Your task to perform on an android device: turn off notifications settings in the gmail app Image 0: 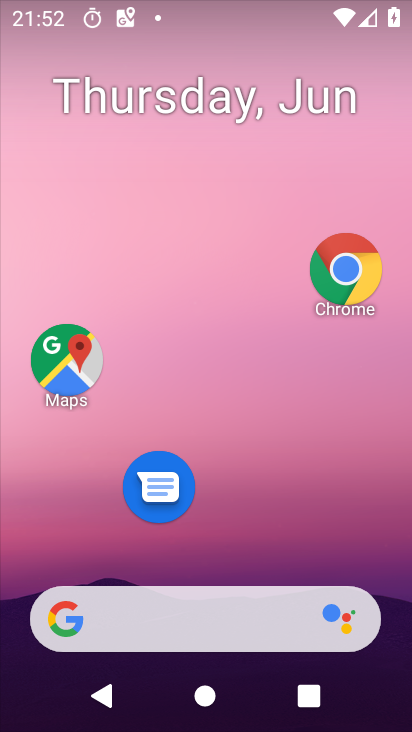
Step 0: drag from (222, 471) to (239, 143)
Your task to perform on an android device: turn off notifications settings in the gmail app Image 1: 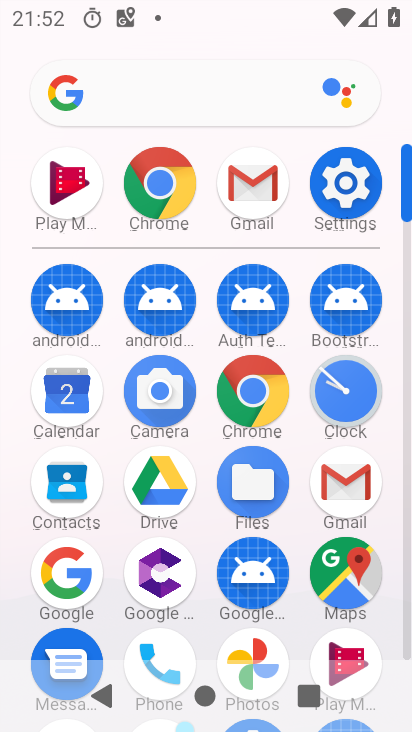
Step 1: click (339, 480)
Your task to perform on an android device: turn off notifications settings in the gmail app Image 2: 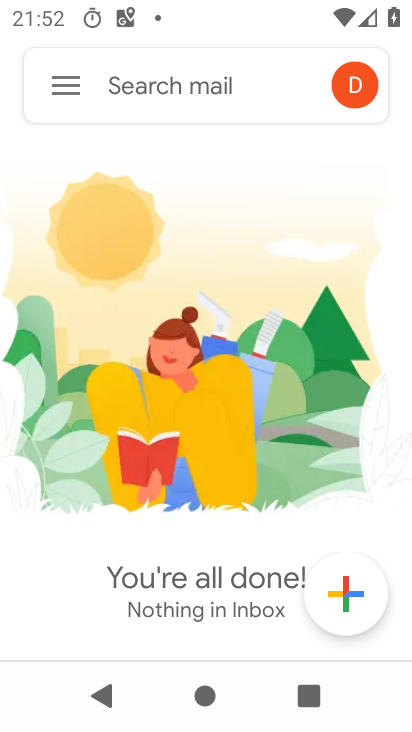
Step 2: drag from (254, 461) to (349, 142)
Your task to perform on an android device: turn off notifications settings in the gmail app Image 3: 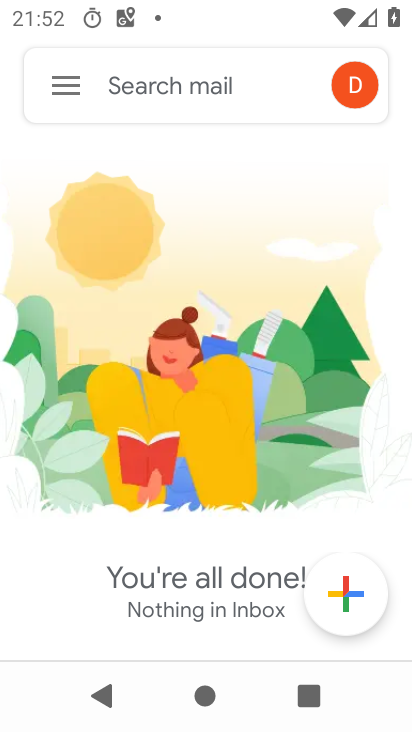
Step 3: click (47, 95)
Your task to perform on an android device: turn off notifications settings in the gmail app Image 4: 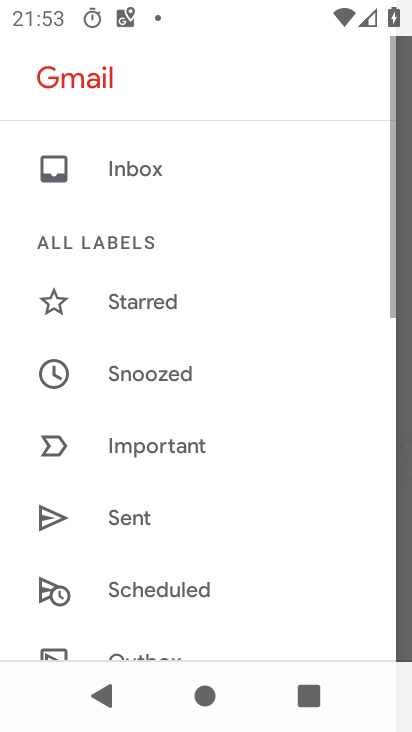
Step 4: drag from (204, 563) to (315, 38)
Your task to perform on an android device: turn off notifications settings in the gmail app Image 5: 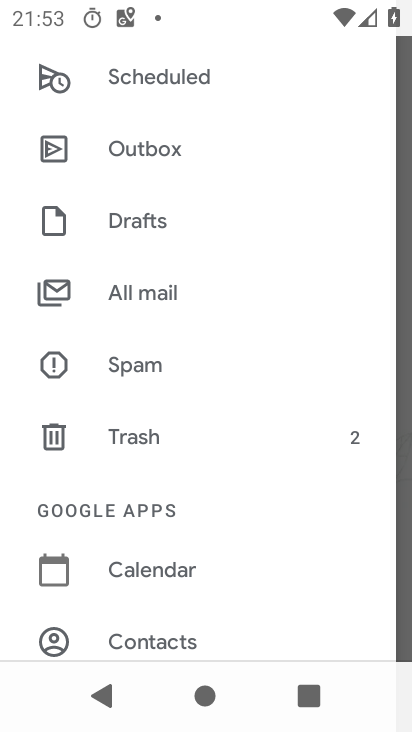
Step 5: drag from (189, 571) to (300, 12)
Your task to perform on an android device: turn off notifications settings in the gmail app Image 6: 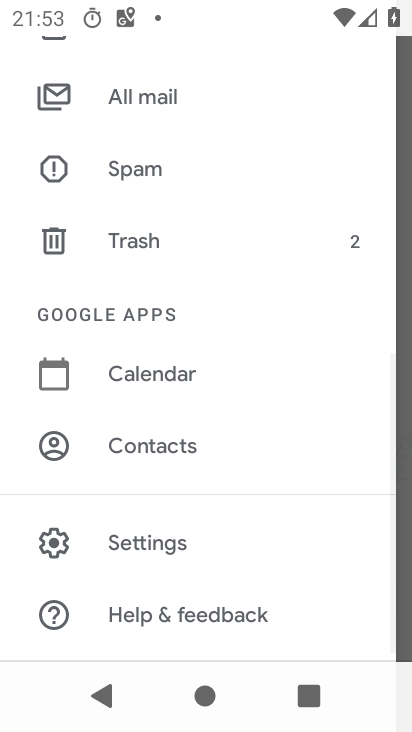
Step 6: click (172, 539)
Your task to perform on an android device: turn off notifications settings in the gmail app Image 7: 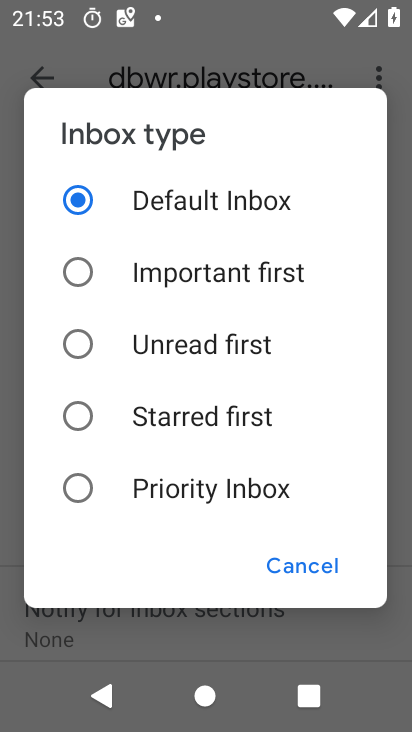
Step 7: click (330, 567)
Your task to perform on an android device: turn off notifications settings in the gmail app Image 8: 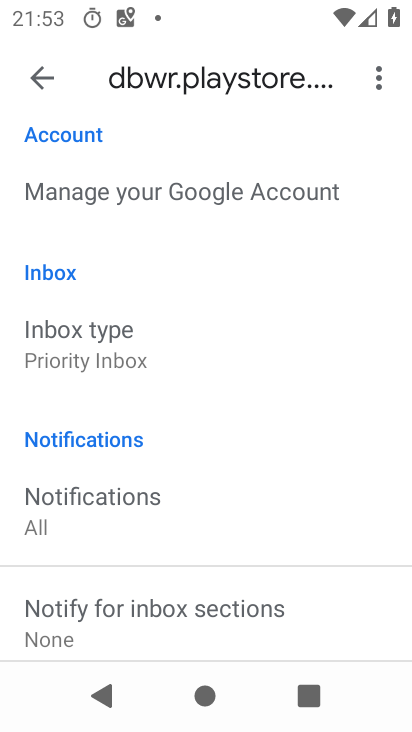
Step 8: drag from (264, 553) to (300, 114)
Your task to perform on an android device: turn off notifications settings in the gmail app Image 9: 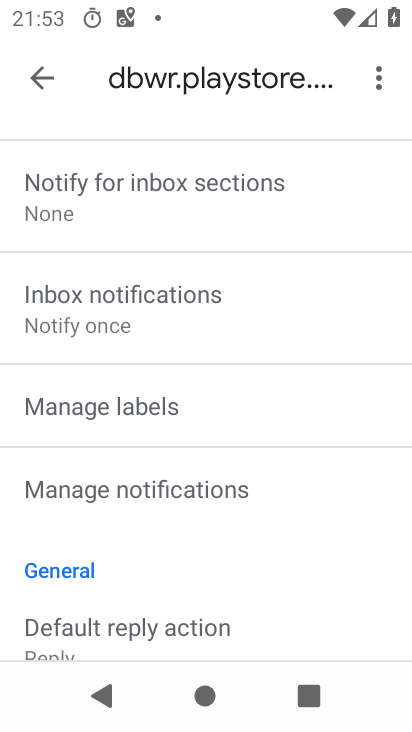
Step 9: click (156, 478)
Your task to perform on an android device: turn off notifications settings in the gmail app Image 10: 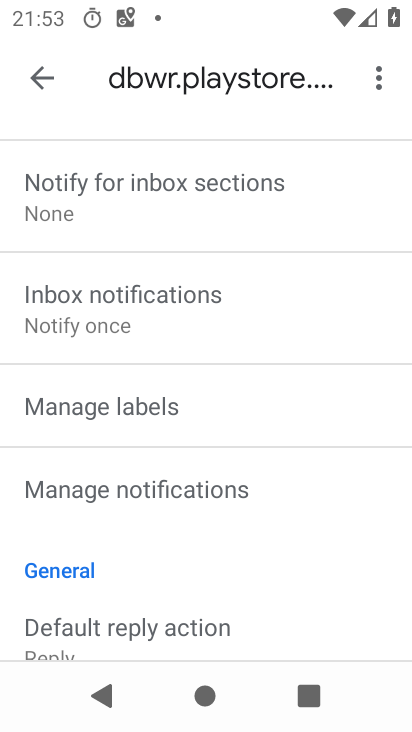
Step 10: click (156, 478)
Your task to perform on an android device: turn off notifications settings in the gmail app Image 11: 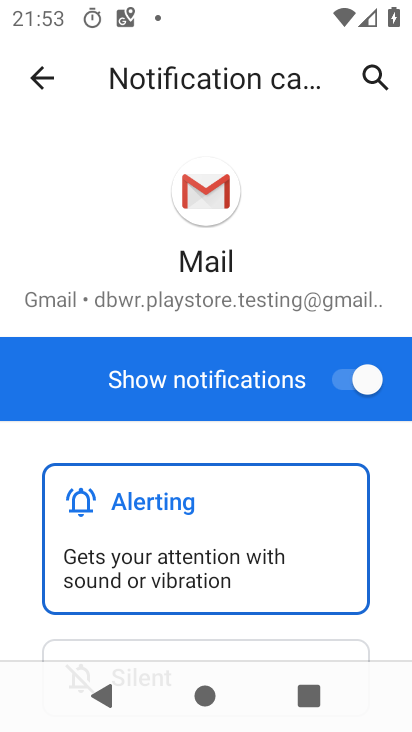
Step 11: click (332, 392)
Your task to perform on an android device: turn off notifications settings in the gmail app Image 12: 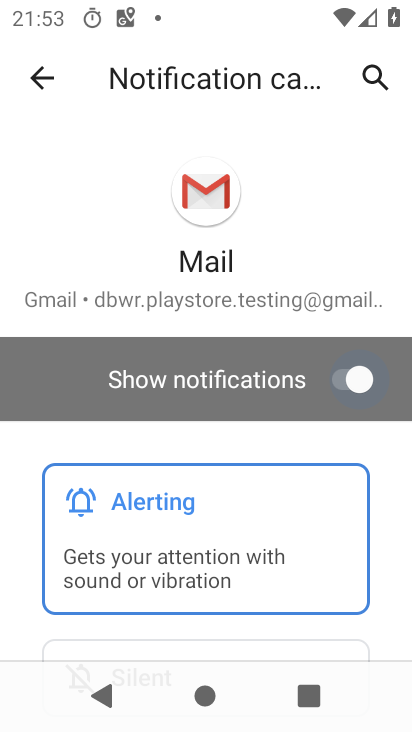
Step 12: task complete